Your task to perform on an android device: open chrome privacy settings Image 0: 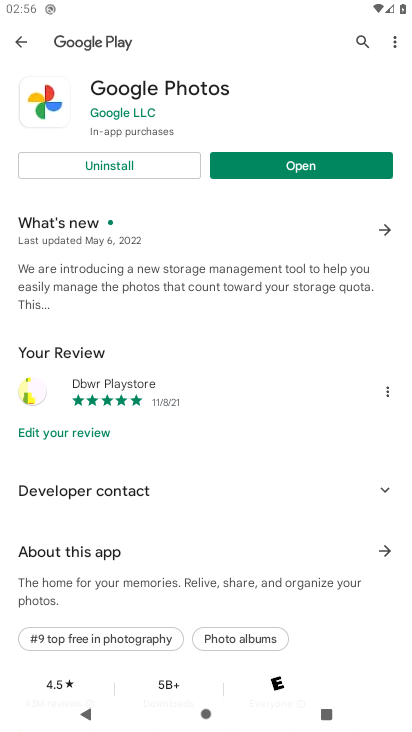
Step 0: click (304, 163)
Your task to perform on an android device: open chrome privacy settings Image 1: 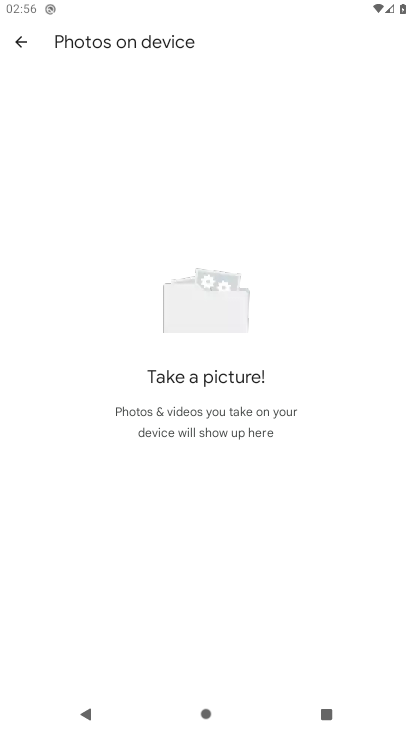
Step 1: press home button
Your task to perform on an android device: open chrome privacy settings Image 2: 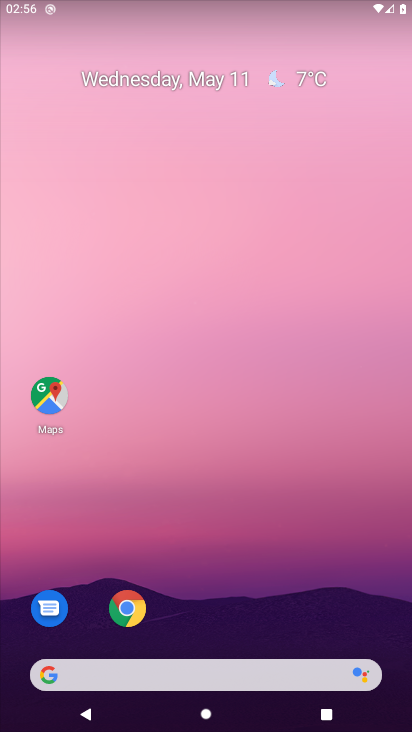
Step 2: drag from (229, 617) to (273, 77)
Your task to perform on an android device: open chrome privacy settings Image 3: 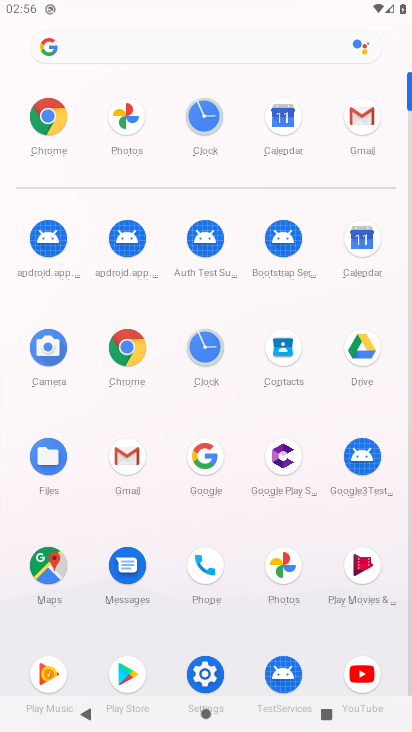
Step 3: drag from (245, 562) to (288, 131)
Your task to perform on an android device: open chrome privacy settings Image 4: 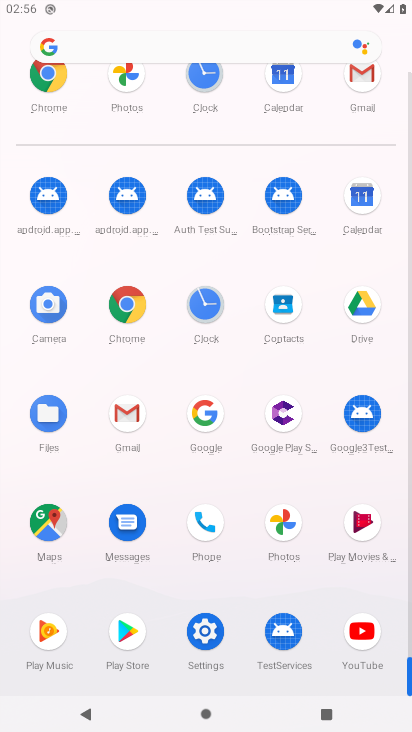
Step 4: click (203, 627)
Your task to perform on an android device: open chrome privacy settings Image 5: 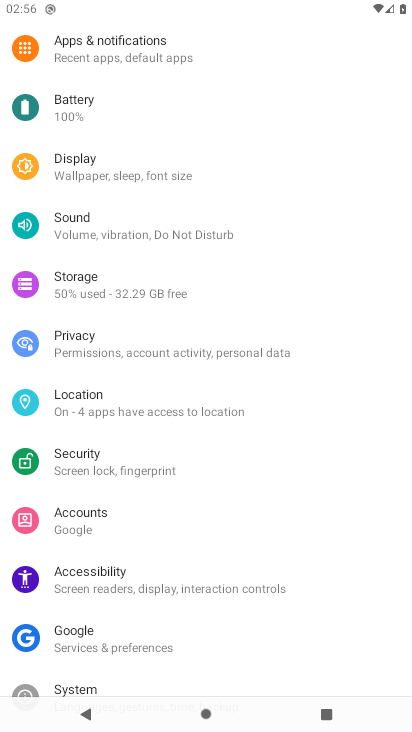
Step 5: click (95, 336)
Your task to perform on an android device: open chrome privacy settings Image 6: 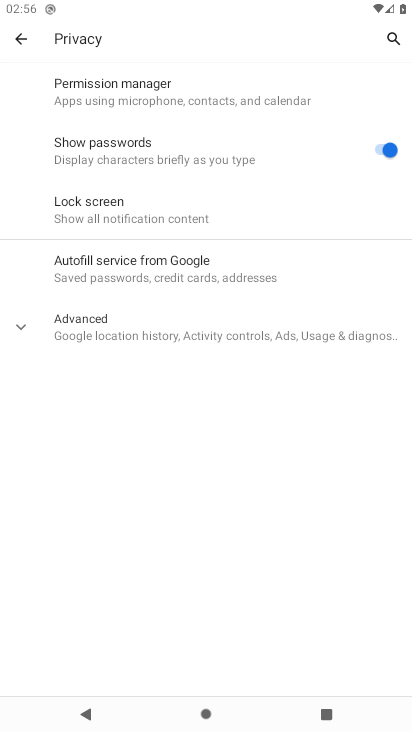
Step 6: click (23, 322)
Your task to perform on an android device: open chrome privacy settings Image 7: 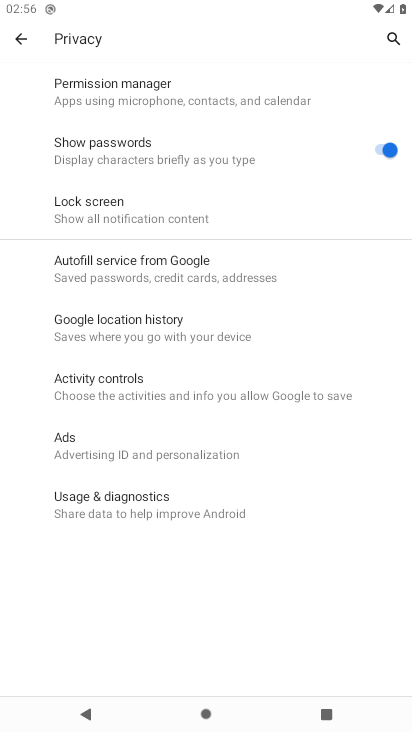
Step 7: task complete